Your task to perform on an android device: turn off notifications settings in the gmail app Image 0: 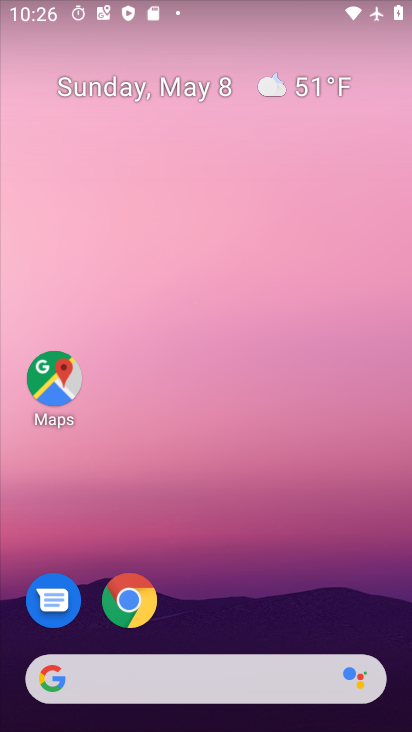
Step 0: drag from (198, 602) to (171, 37)
Your task to perform on an android device: turn off notifications settings in the gmail app Image 1: 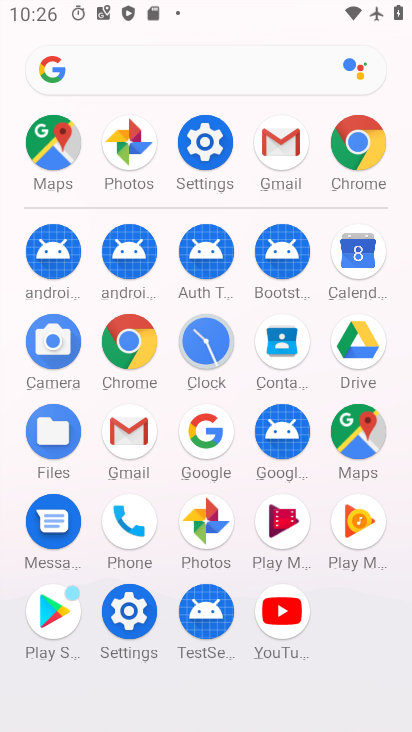
Step 1: drag from (9, 535) to (8, 292)
Your task to perform on an android device: turn off notifications settings in the gmail app Image 2: 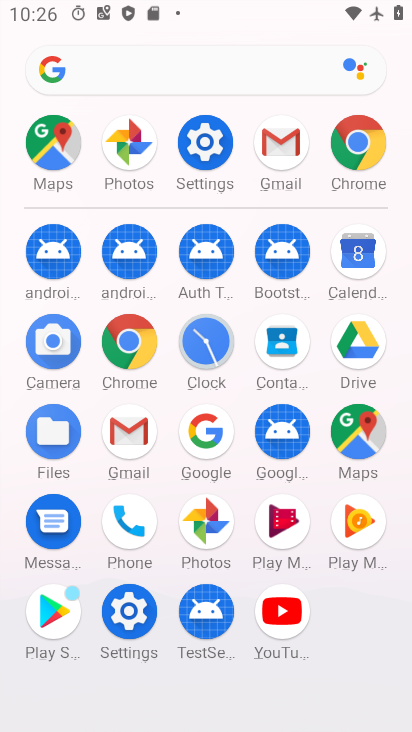
Step 2: click (127, 426)
Your task to perform on an android device: turn off notifications settings in the gmail app Image 3: 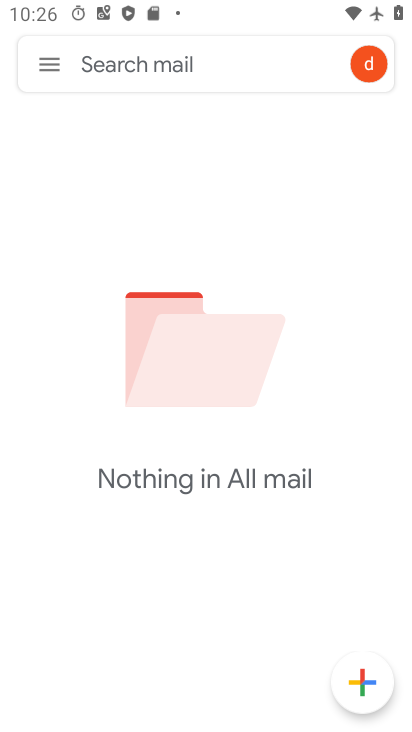
Step 3: click (55, 68)
Your task to perform on an android device: turn off notifications settings in the gmail app Image 4: 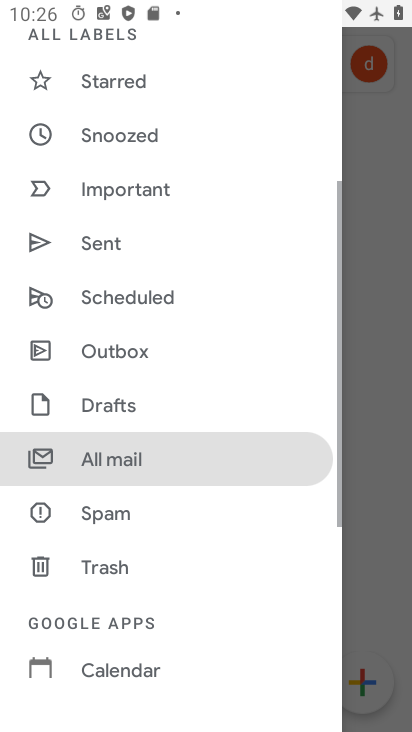
Step 4: drag from (183, 675) to (182, 125)
Your task to perform on an android device: turn off notifications settings in the gmail app Image 5: 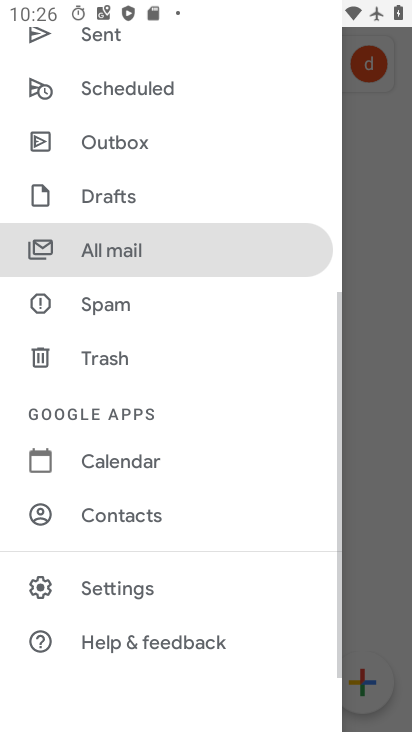
Step 5: click (126, 590)
Your task to perform on an android device: turn off notifications settings in the gmail app Image 6: 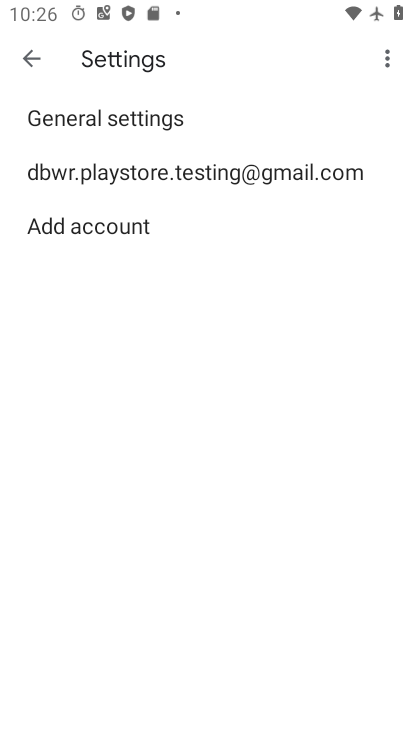
Step 6: click (209, 172)
Your task to perform on an android device: turn off notifications settings in the gmail app Image 7: 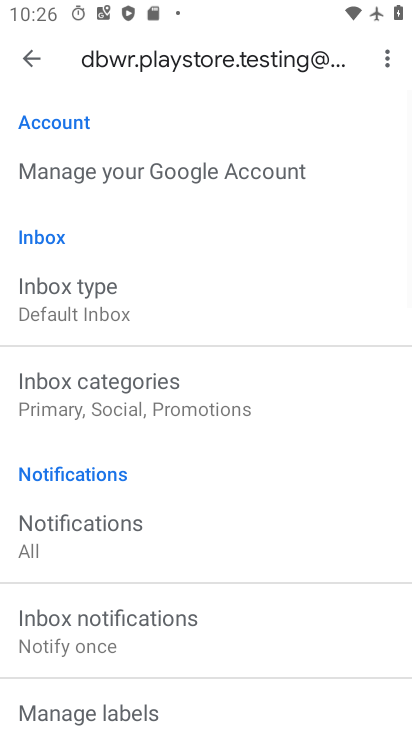
Step 7: drag from (164, 652) to (225, 271)
Your task to perform on an android device: turn off notifications settings in the gmail app Image 8: 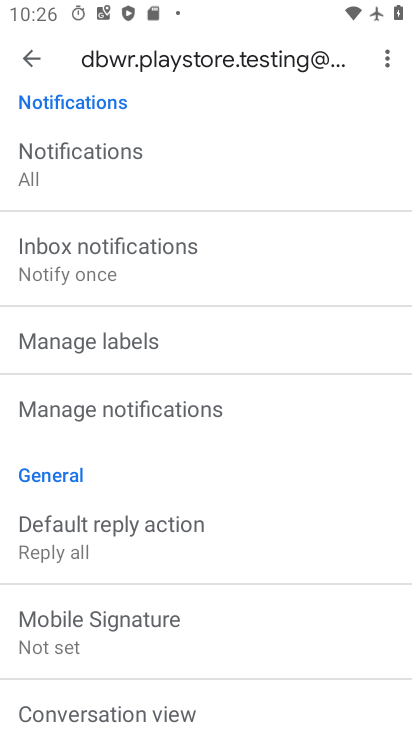
Step 8: click (147, 410)
Your task to perform on an android device: turn off notifications settings in the gmail app Image 9: 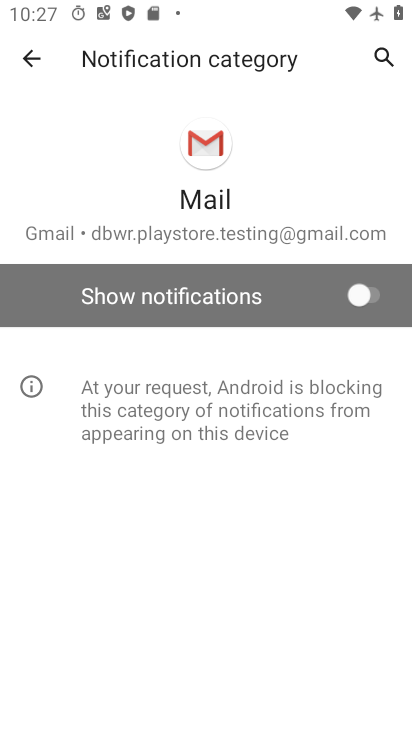
Step 9: task complete